Your task to perform on an android device: turn off data saver in the chrome app Image 0: 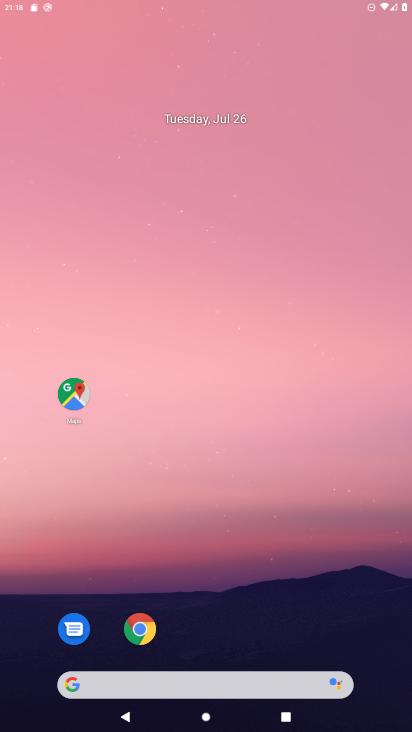
Step 0: press home button
Your task to perform on an android device: turn off data saver in the chrome app Image 1: 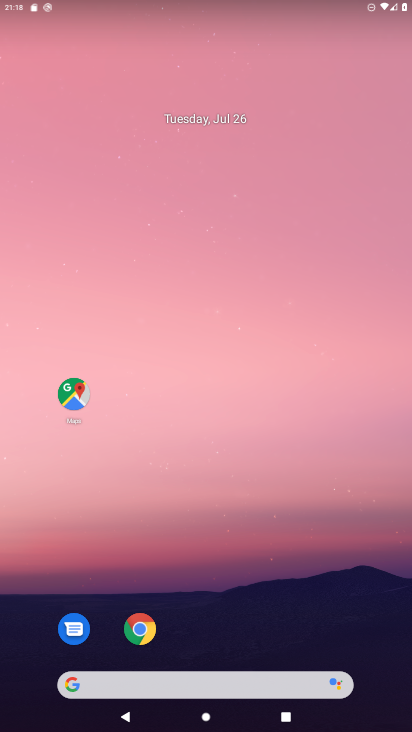
Step 1: click (295, 22)
Your task to perform on an android device: turn off data saver in the chrome app Image 2: 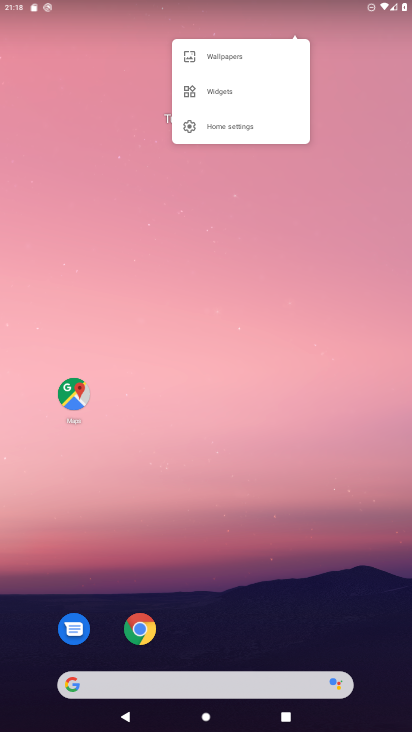
Step 2: click (152, 632)
Your task to perform on an android device: turn off data saver in the chrome app Image 3: 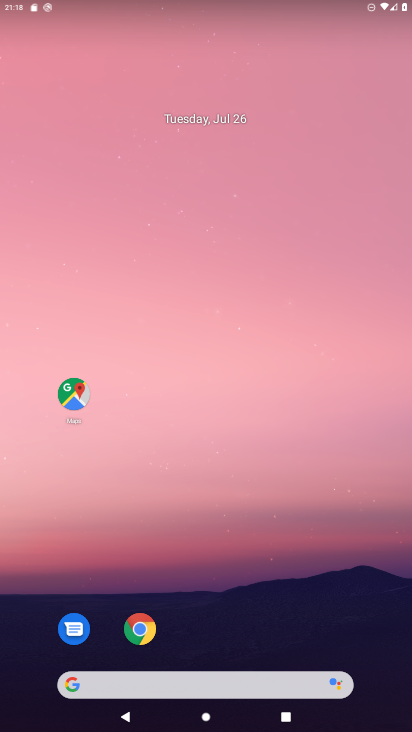
Step 3: drag from (289, 664) to (262, 220)
Your task to perform on an android device: turn off data saver in the chrome app Image 4: 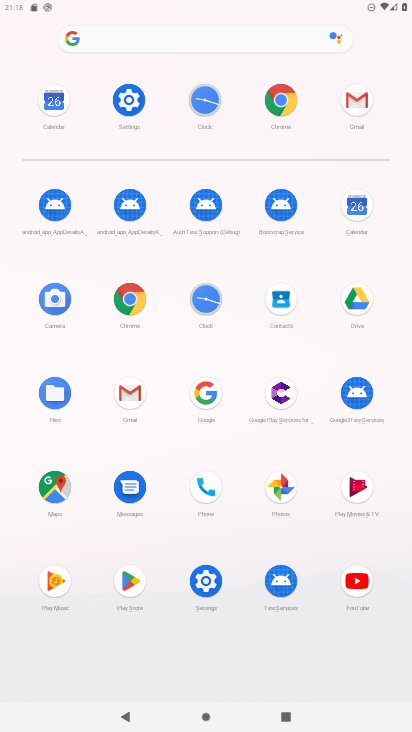
Step 4: click (286, 85)
Your task to perform on an android device: turn off data saver in the chrome app Image 5: 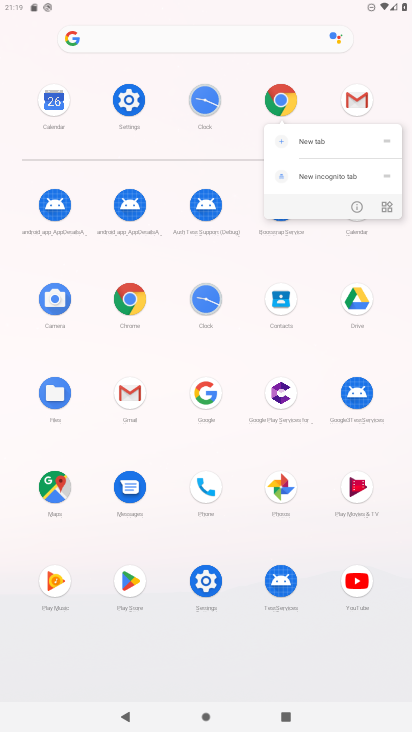
Step 5: click (143, 656)
Your task to perform on an android device: turn off data saver in the chrome app Image 6: 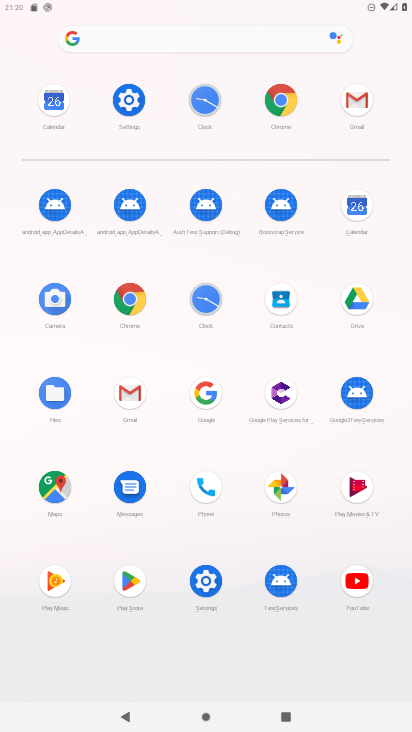
Step 6: click (291, 98)
Your task to perform on an android device: turn off data saver in the chrome app Image 7: 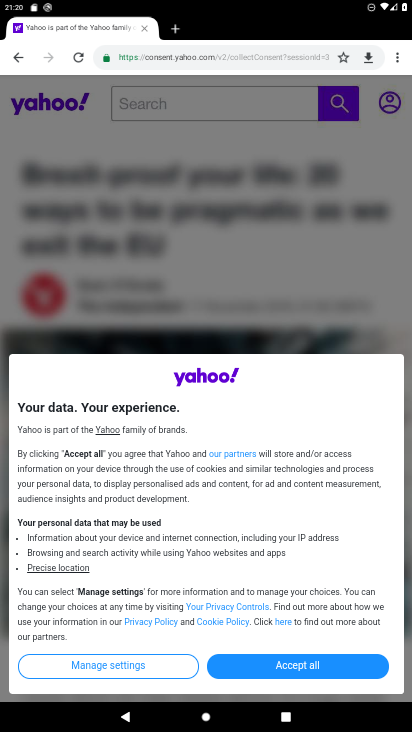
Step 7: drag from (403, 57) to (278, 377)
Your task to perform on an android device: turn off data saver in the chrome app Image 8: 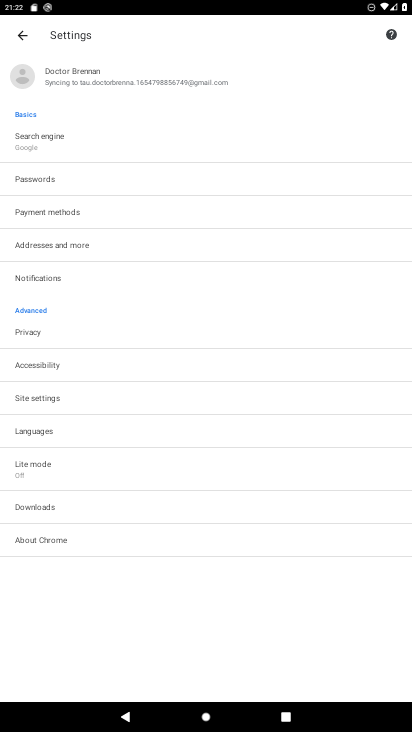
Step 8: click (41, 471)
Your task to perform on an android device: turn off data saver in the chrome app Image 9: 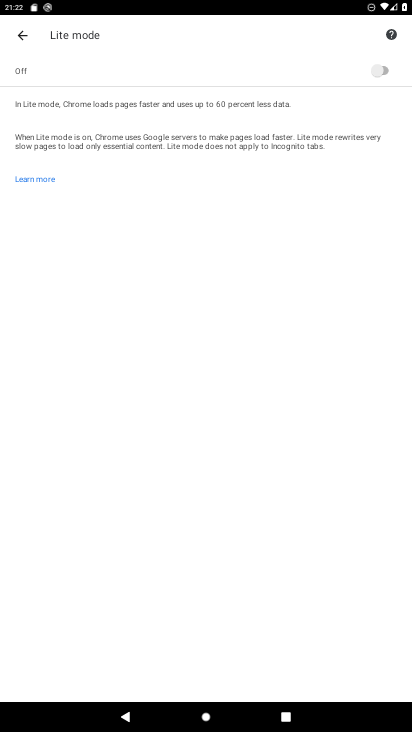
Step 9: task complete